Your task to perform on an android device: Open Google Chrome and click the shortcut for Amazon.com Image 0: 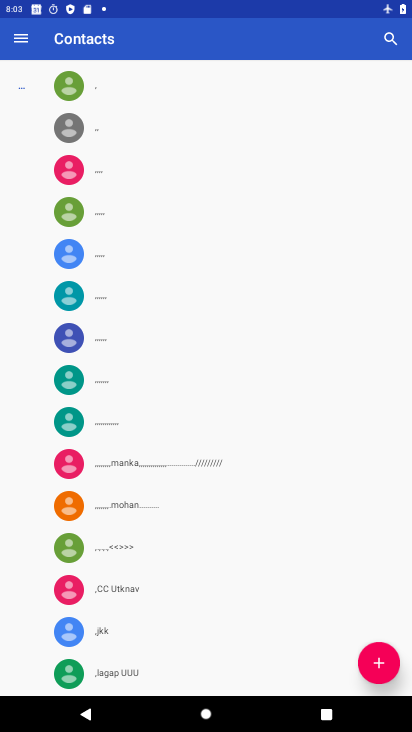
Step 0: press home button
Your task to perform on an android device: Open Google Chrome and click the shortcut for Amazon.com Image 1: 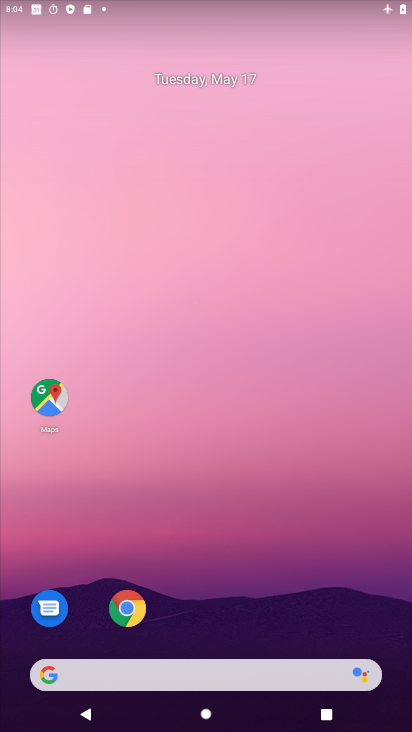
Step 1: click (121, 611)
Your task to perform on an android device: Open Google Chrome and click the shortcut for Amazon.com Image 2: 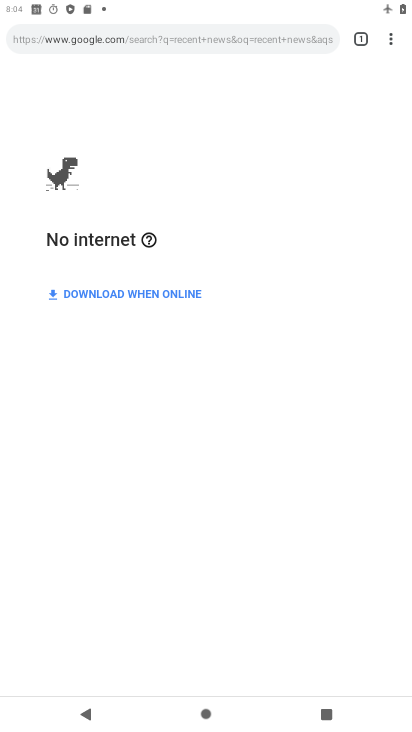
Step 2: click (92, 711)
Your task to perform on an android device: Open Google Chrome and click the shortcut for Amazon.com Image 3: 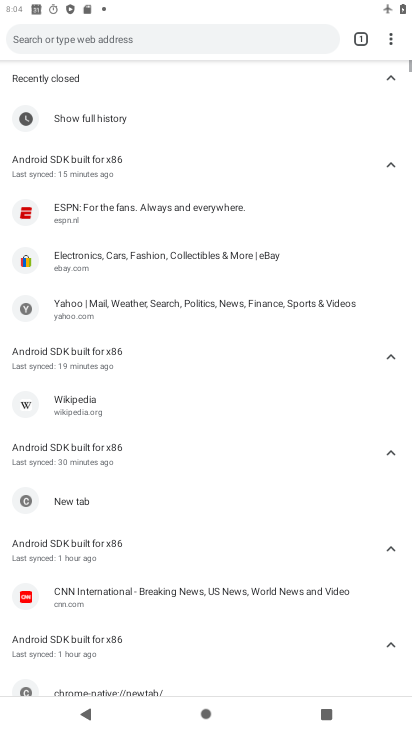
Step 3: press back button
Your task to perform on an android device: Open Google Chrome and click the shortcut for Amazon.com Image 4: 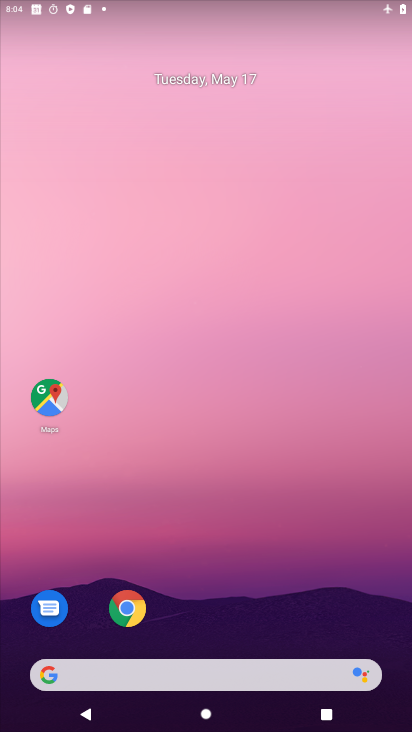
Step 4: drag from (385, 649) to (331, 112)
Your task to perform on an android device: Open Google Chrome and click the shortcut for Amazon.com Image 5: 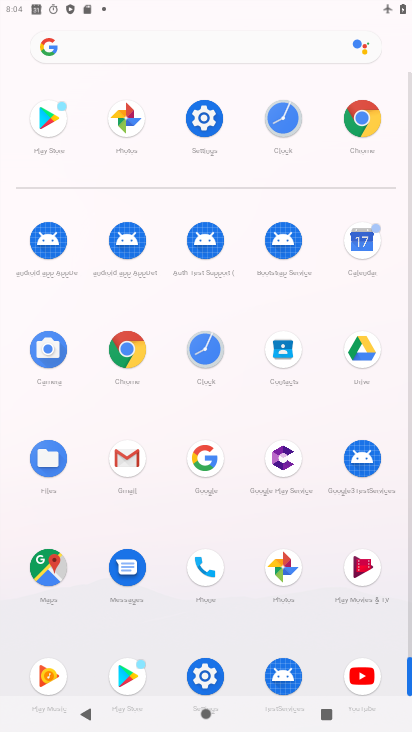
Step 5: click (165, 90)
Your task to perform on an android device: Open Google Chrome and click the shortcut for Amazon.com Image 6: 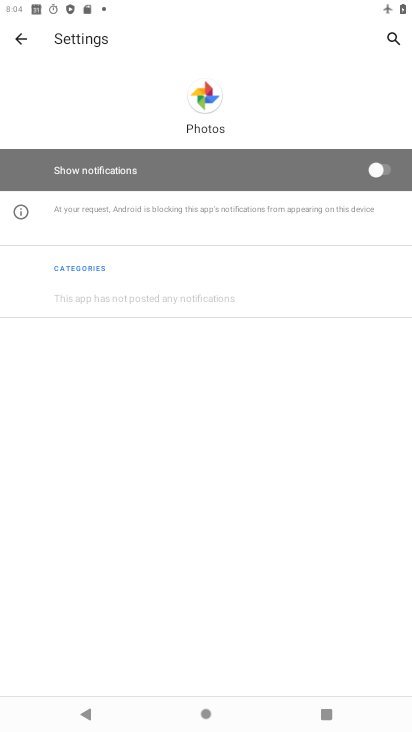
Step 6: click (16, 38)
Your task to perform on an android device: Open Google Chrome and click the shortcut for Amazon.com Image 7: 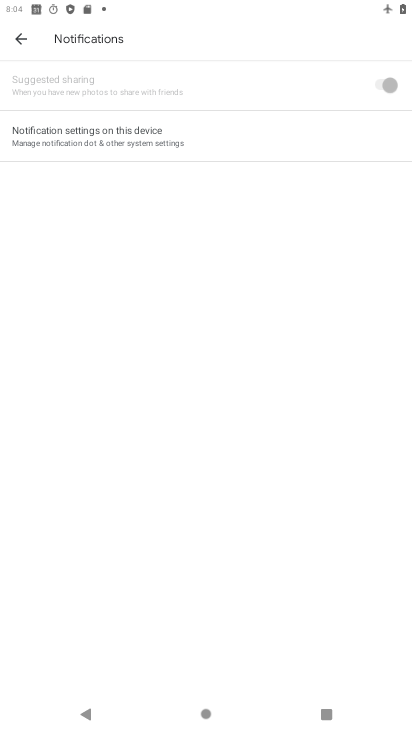
Step 7: press back button
Your task to perform on an android device: Open Google Chrome and click the shortcut for Amazon.com Image 8: 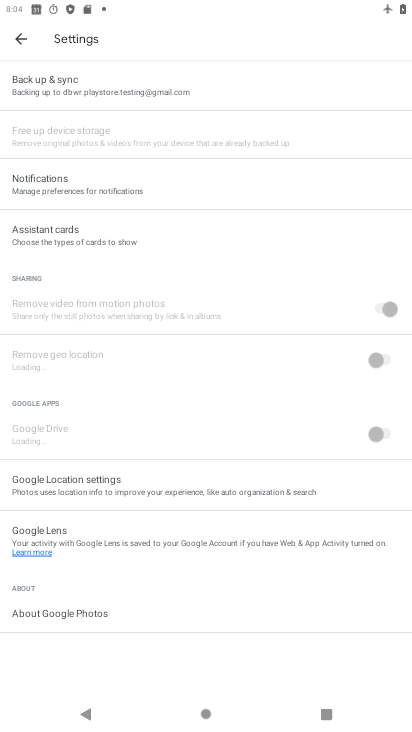
Step 8: press home button
Your task to perform on an android device: Open Google Chrome and click the shortcut for Amazon.com Image 9: 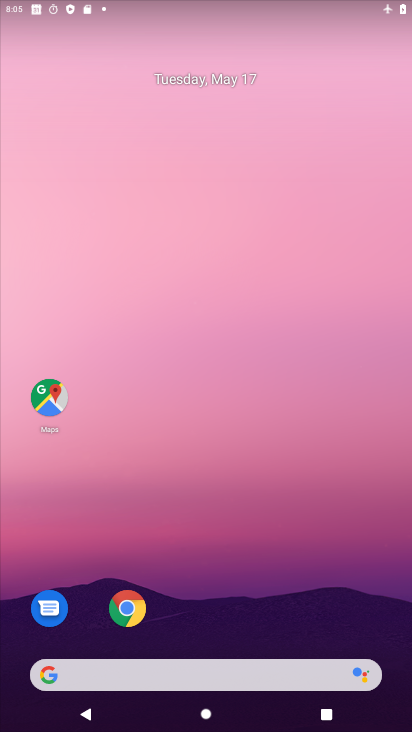
Step 9: drag from (352, 553) to (359, 154)
Your task to perform on an android device: Open Google Chrome and click the shortcut for Amazon.com Image 10: 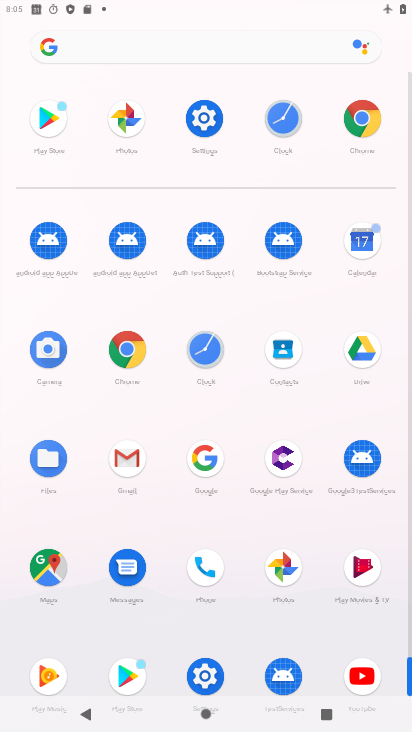
Step 10: click (187, 95)
Your task to perform on an android device: Open Google Chrome and click the shortcut for Amazon.com Image 11: 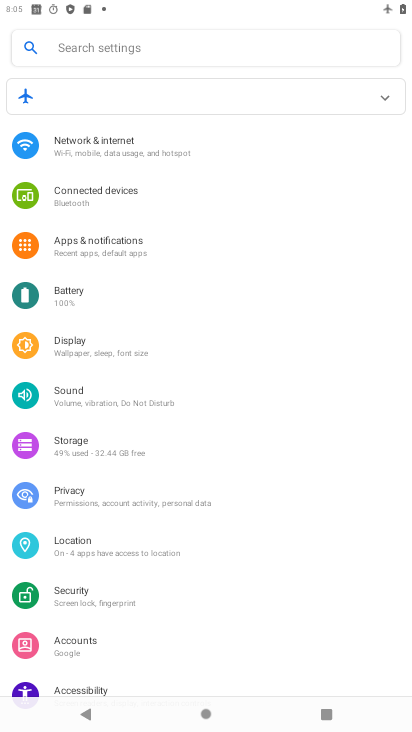
Step 11: click (28, 100)
Your task to perform on an android device: Open Google Chrome and click the shortcut for Amazon.com Image 12: 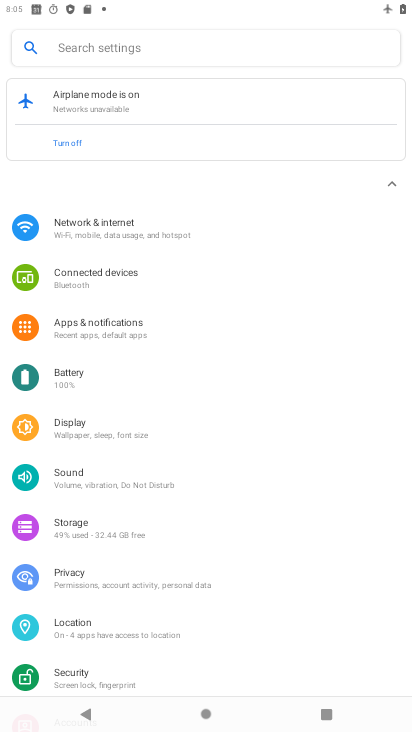
Step 12: click (81, 149)
Your task to perform on an android device: Open Google Chrome and click the shortcut for Amazon.com Image 13: 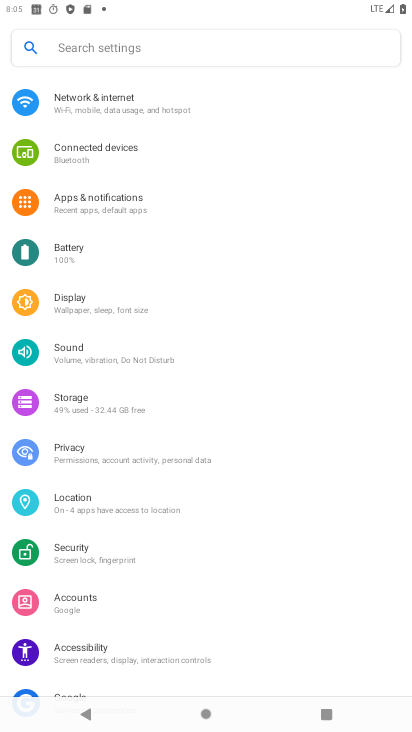
Step 13: task complete